Your task to perform on an android device: Go to Amazon Image 0: 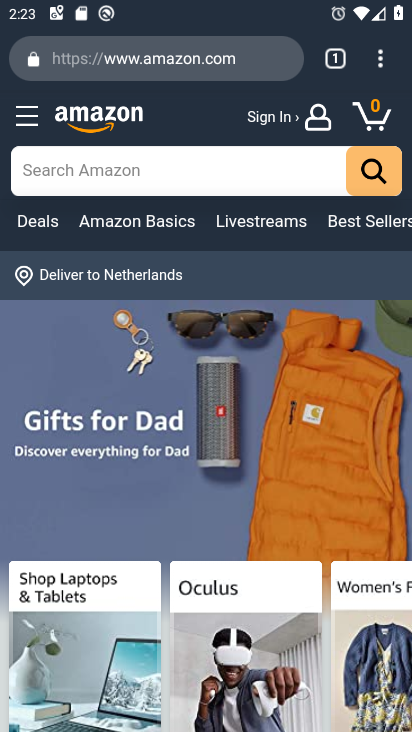
Step 0: press home button
Your task to perform on an android device: Go to Amazon Image 1: 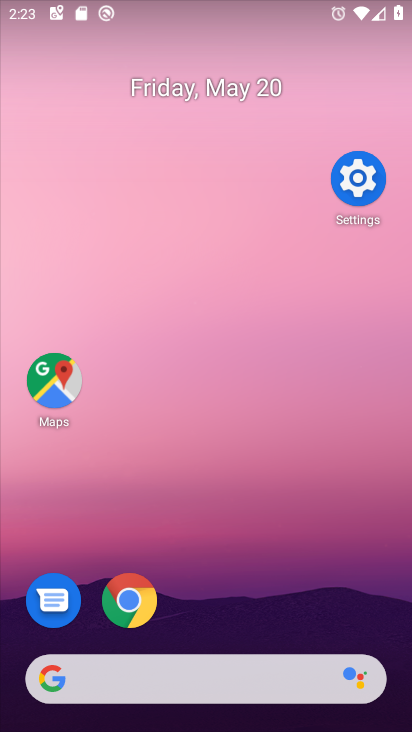
Step 1: click (128, 594)
Your task to perform on an android device: Go to Amazon Image 2: 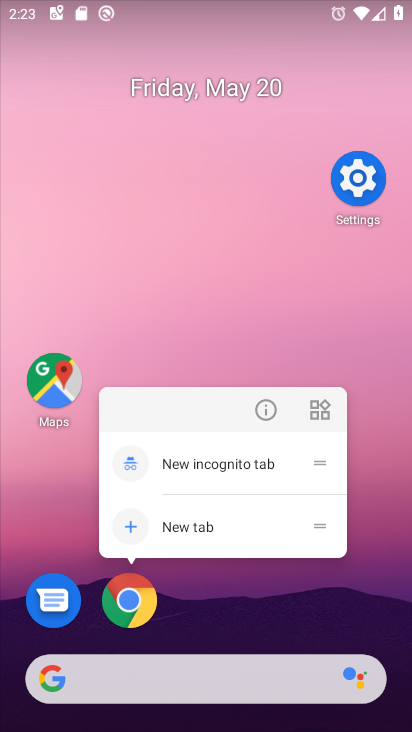
Step 2: click (126, 588)
Your task to perform on an android device: Go to Amazon Image 3: 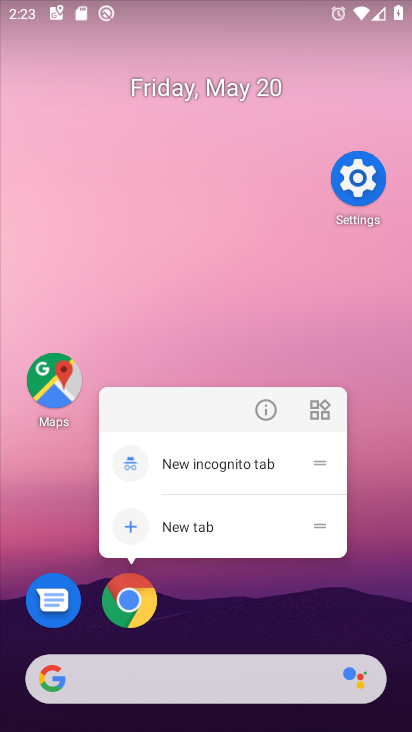
Step 3: click (128, 578)
Your task to perform on an android device: Go to Amazon Image 4: 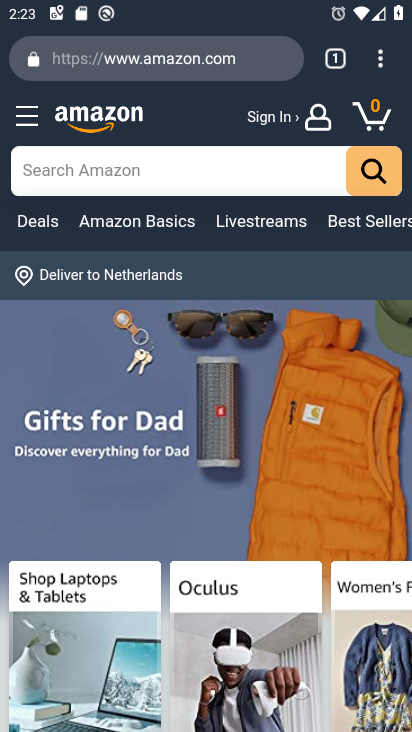
Step 4: task complete